Your task to perform on an android device: Open Google Maps Image 0: 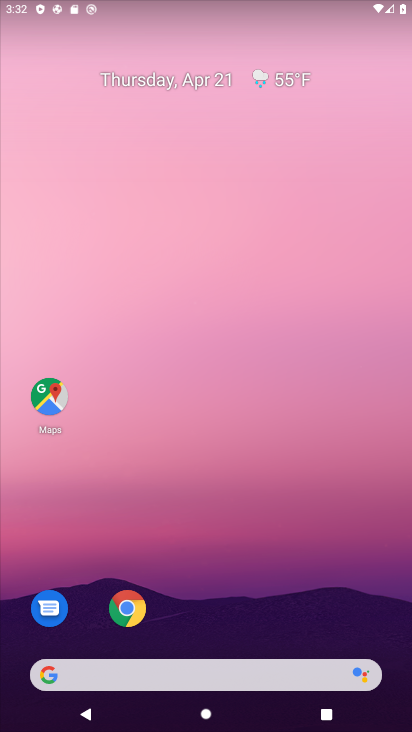
Step 0: drag from (272, 724) to (145, 68)
Your task to perform on an android device: Open Google Maps Image 1: 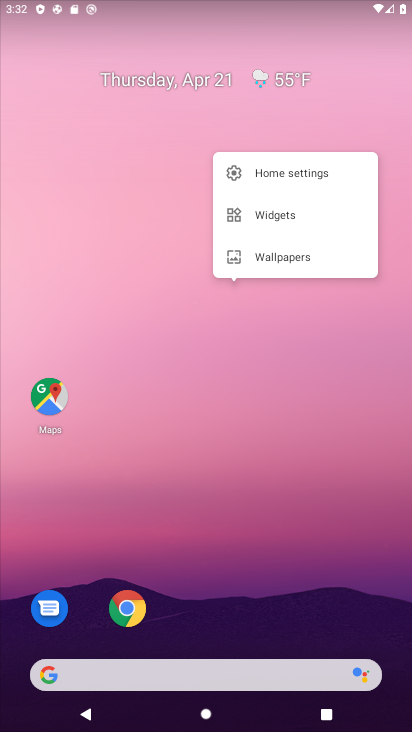
Step 1: click (126, 404)
Your task to perform on an android device: Open Google Maps Image 2: 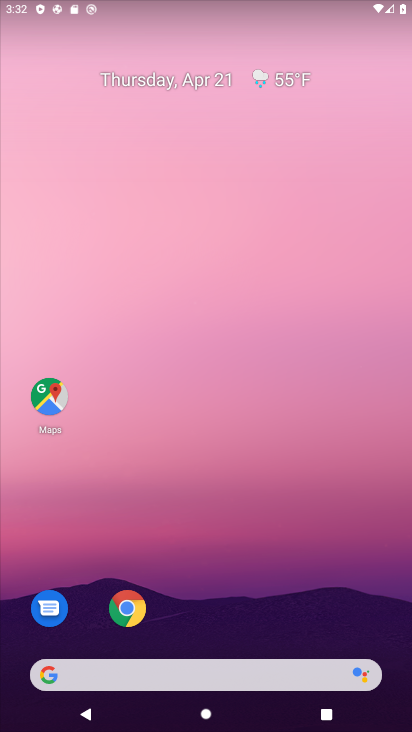
Step 2: drag from (171, 628) to (407, 46)
Your task to perform on an android device: Open Google Maps Image 3: 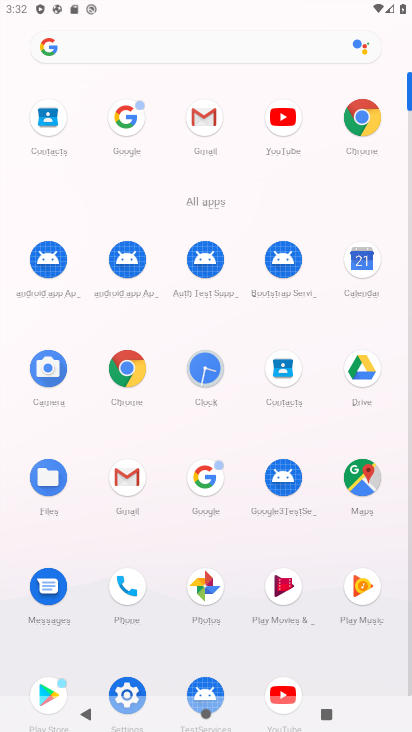
Step 3: click (372, 483)
Your task to perform on an android device: Open Google Maps Image 4: 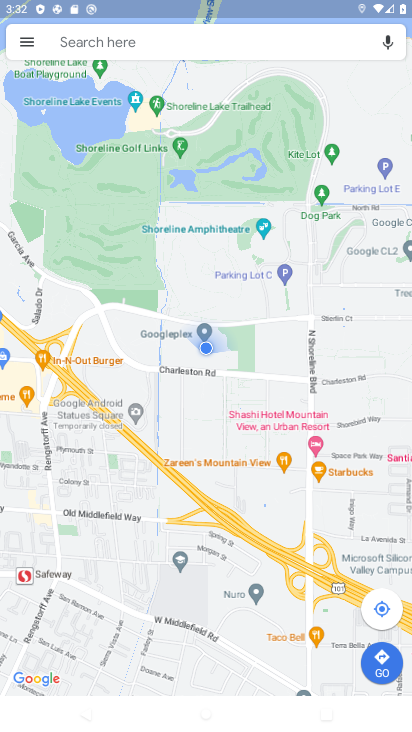
Step 4: task complete